Your task to perform on an android device: Show me the alarms in the clock app Image 0: 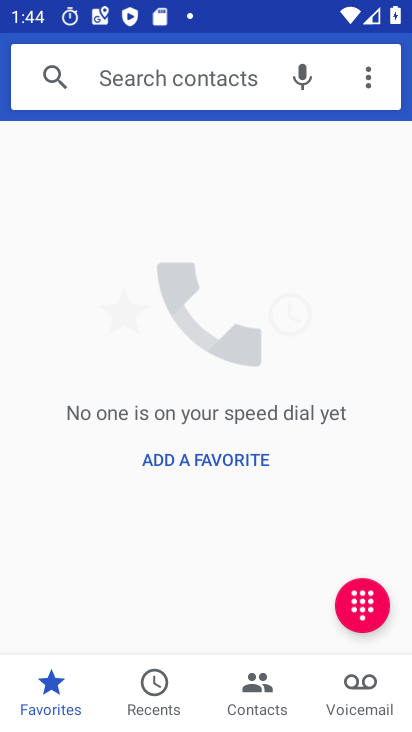
Step 0: press home button
Your task to perform on an android device: Show me the alarms in the clock app Image 1: 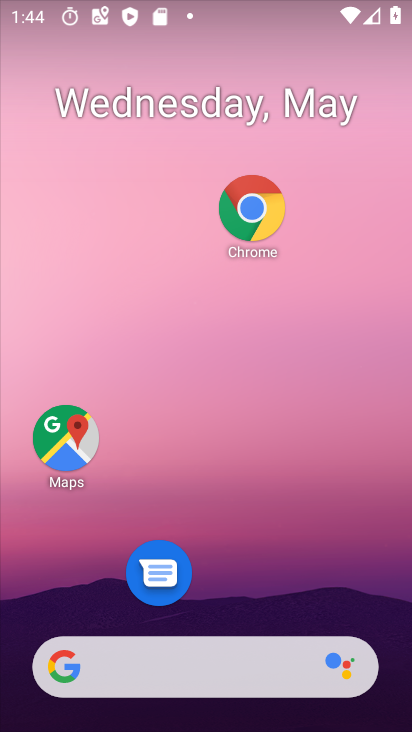
Step 1: drag from (246, 604) to (183, 175)
Your task to perform on an android device: Show me the alarms in the clock app Image 2: 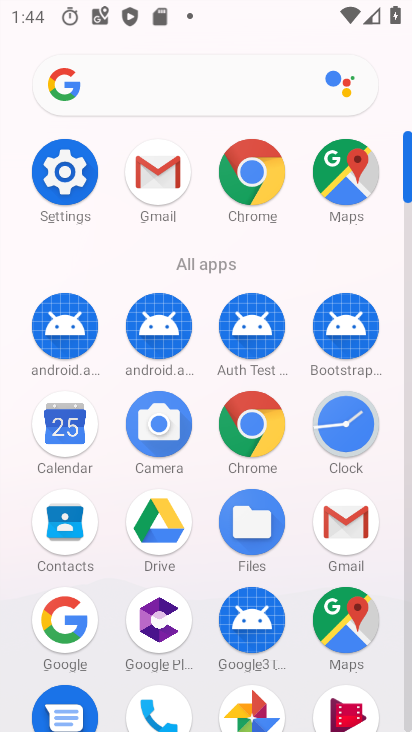
Step 2: click (332, 433)
Your task to perform on an android device: Show me the alarms in the clock app Image 3: 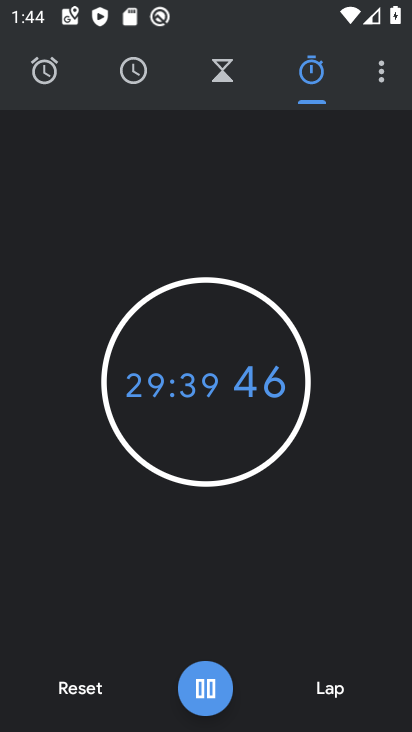
Step 3: click (49, 88)
Your task to perform on an android device: Show me the alarms in the clock app Image 4: 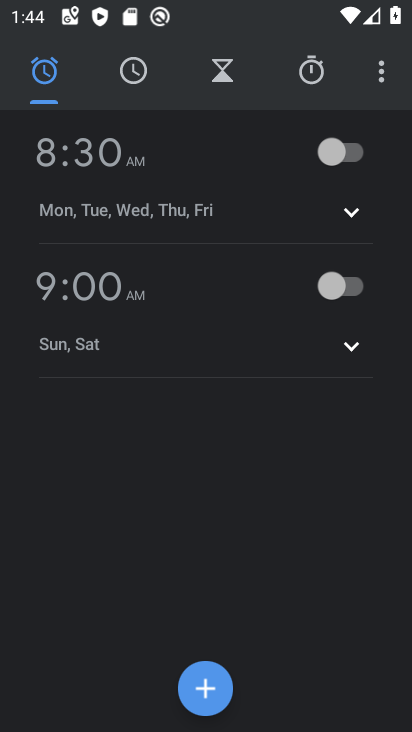
Step 4: task complete